Your task to perform on an android device: Open Maps and search for coffee Image 0: 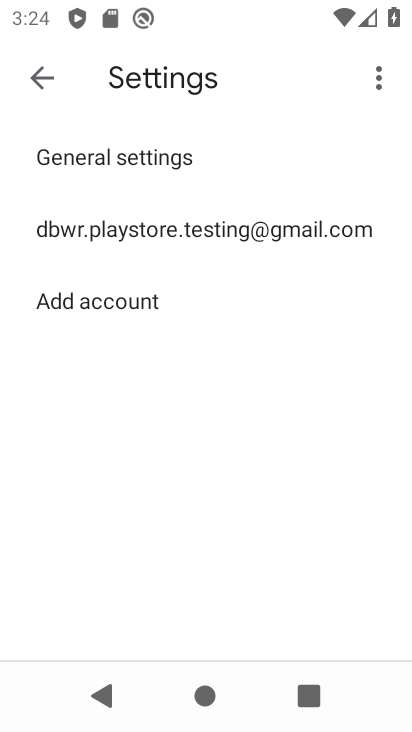
Step 0: press home button
Your task to perform on an android device: Open Maps and search for coffee Image 1: 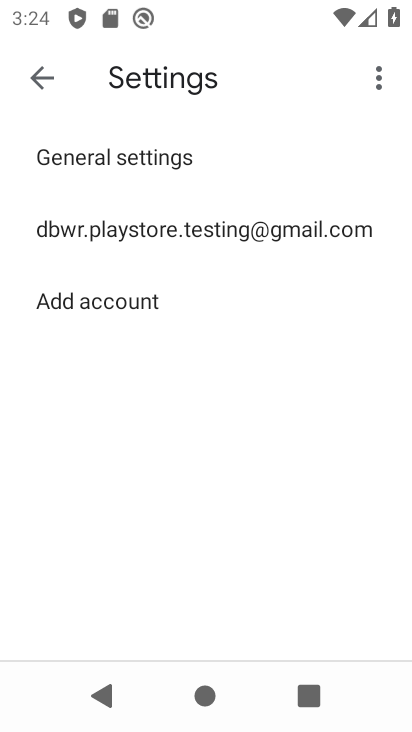
Step 1: press home button
Your task to perform on an android device: Open Maps and search for coffee Image 2: 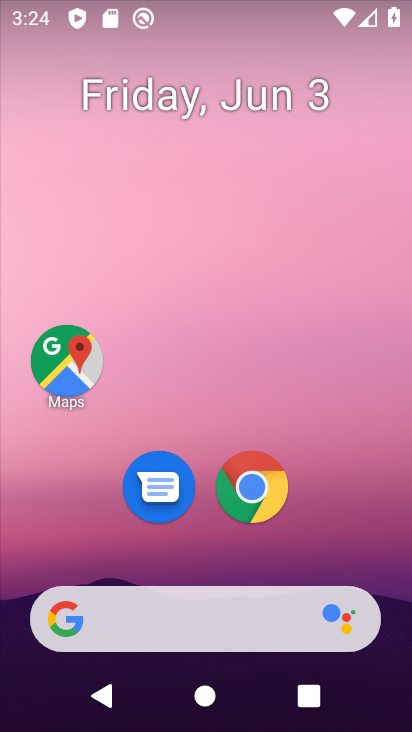
Step 2: drag from (219, 531) to (37, 266)
Your task to perform on an android device: Open Maps and search for coffee Image 3: 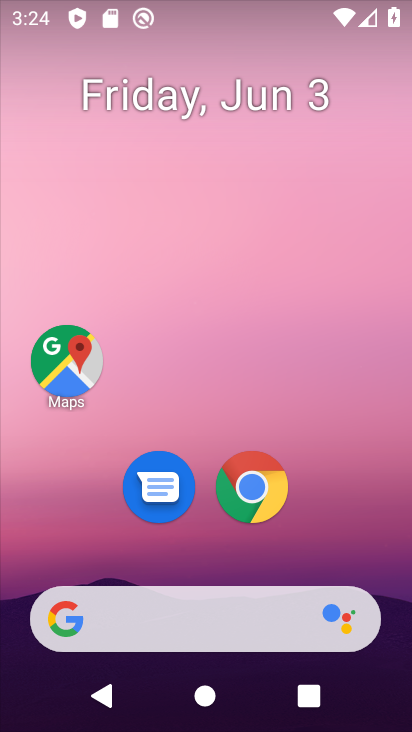
Step 3: click (68, 363)
Your task to perform on an android device: Open Maps and search for coffee Image 4: 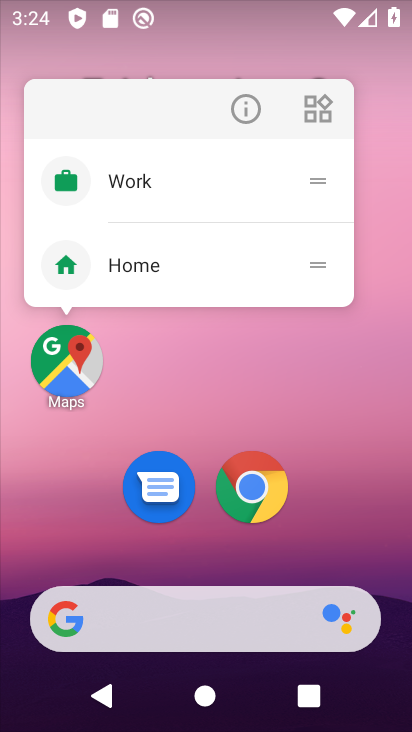
Step 4: click (242, 114)
Your task to perform on an android device: Open Maps and search for coffee Image 5: 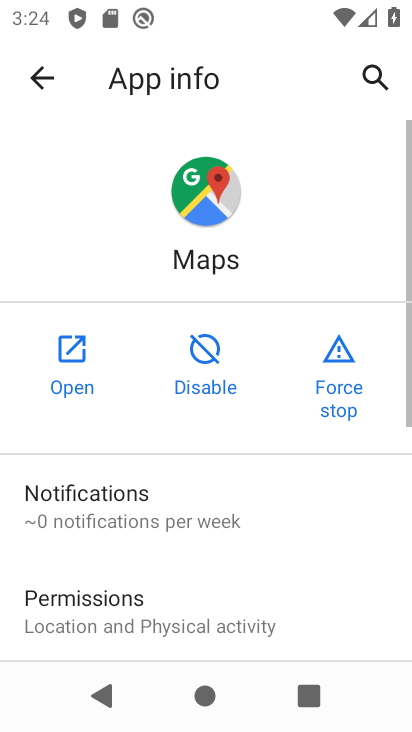
Step 5: click (54, 371)
Your task to perform on an android device: Open Maps and search for coffee Image 6: 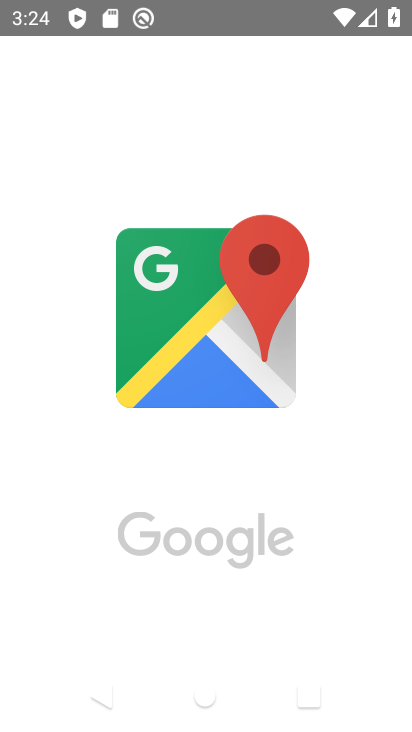
Step 6: drag from (202, 590) to (277, 179)
Your task to perform on an android device: Open Maps and search for coffee Image 7: 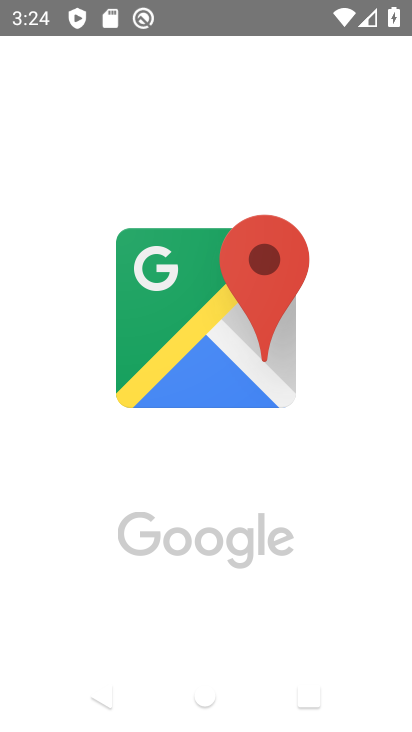
Step 7: drag from (241, 324) to (241, 227)
Your task to perform on an android device: Open Maps and search for coffee Image 8: 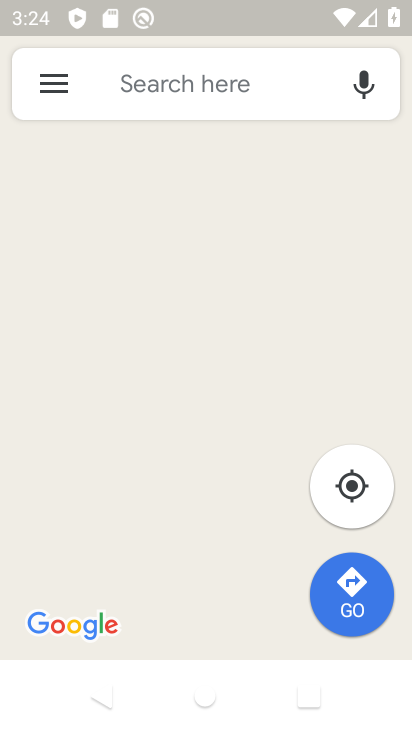
Step 8: drag from (224, 519) to (265, 97)
Your task to perform on an android device: Open Maps and search for coffee Image 9: 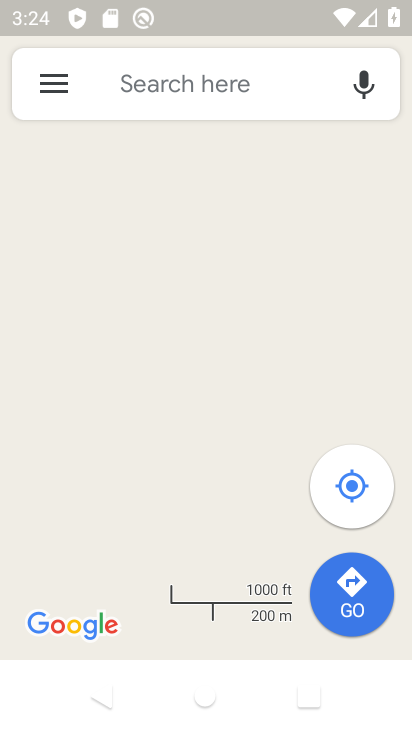
Step 9: click (148, 76)
Your task to perform on an android device: Open Maps and search for coffee Image 10: 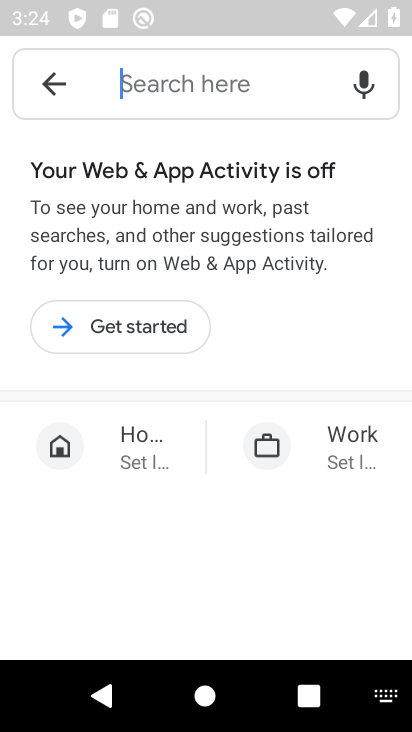
Step 10: drag from (190, 532) to (274, 137)
Your task to perform on an android device: Open Maps and search for coffee Image 11: 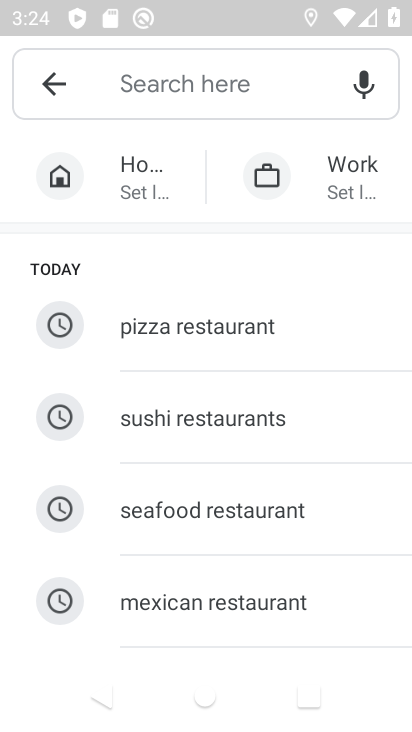
Step 11: drag from (201, 557) to (254, 238)
Your task to perform on an android device: Open Maps and search for coffee Image 12: 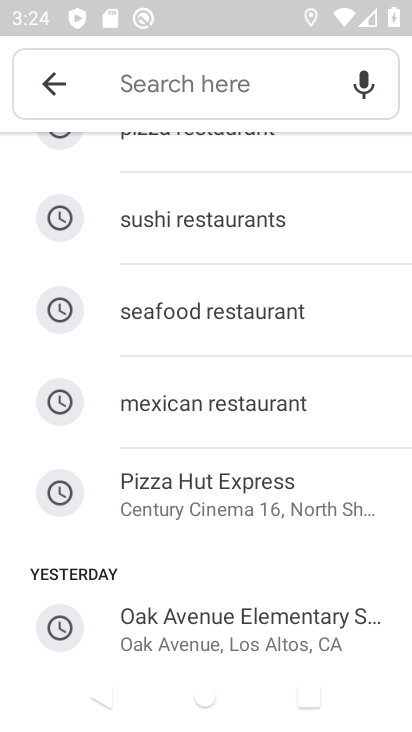
Step 12: drag from (241, 556) to (279, 152)
Your task to perform on an android device: Open Maps and search for coffee Image 13: 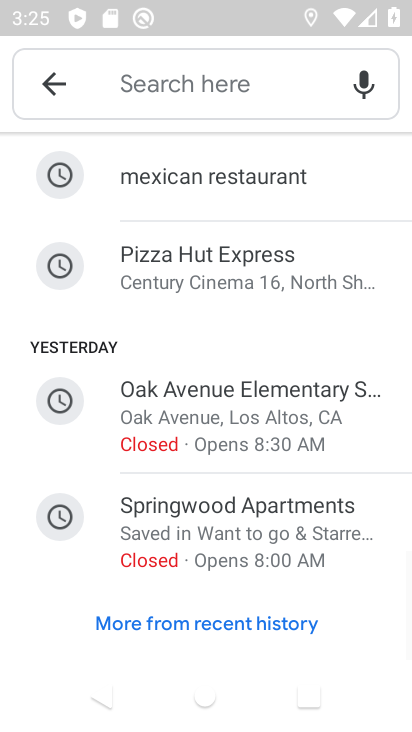
Step 13: drag from (205, 560) to (231, 187)
Your task to perform on an android device: Open Maps and search for coffee Image 14: 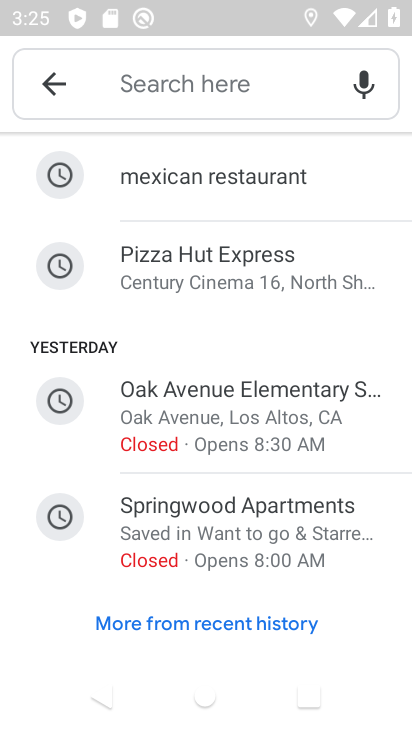
Step 14: drag from (199, 281) to (397, 720)
Your task to perform on an android device: Open Maps and search for coffee Image 15: 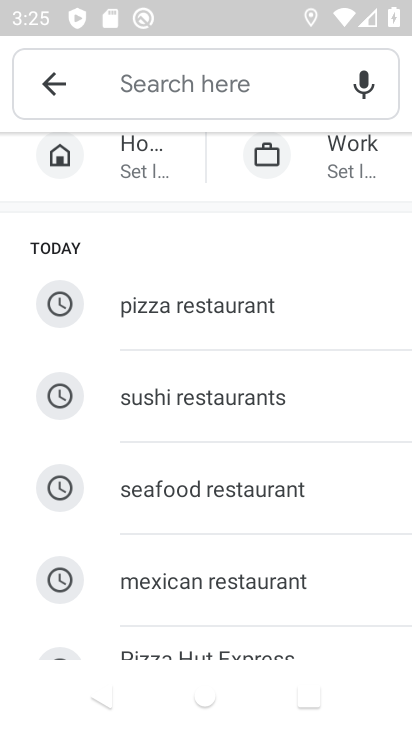
Step 15: drag from (125, 241) to (218, 637)
Your task to perform on an android device: Open Maps and search for coffee Image 16: 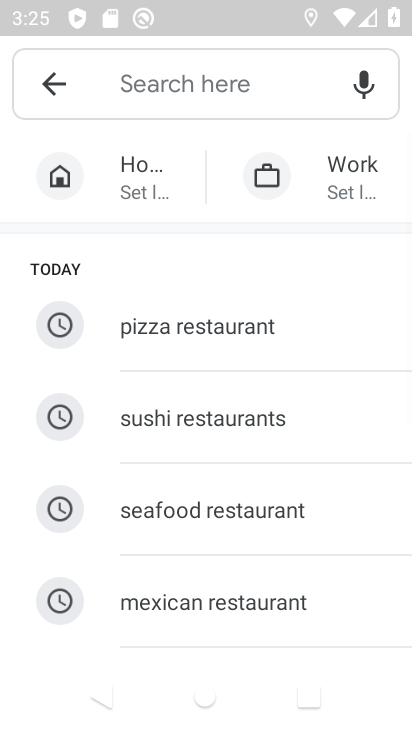
Step 16: click (118, 91)
Your task to perform on an android device: Open Maps and search for coffee Image 17: 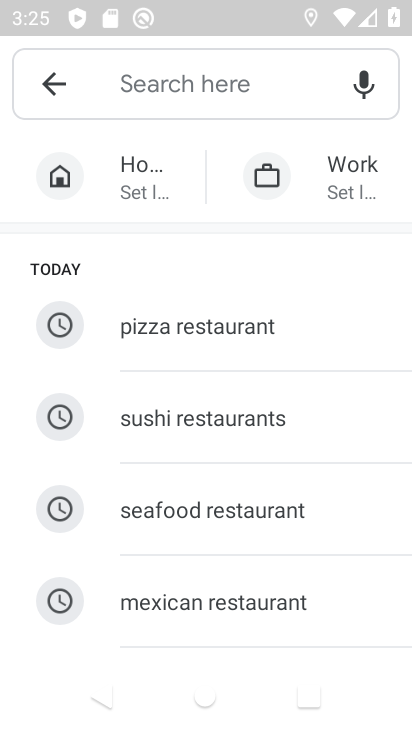
Step 17: drag from (222, 400) to (218, 658)
Your task to perform on an android device: Open Maps and search for coffee Image 18: 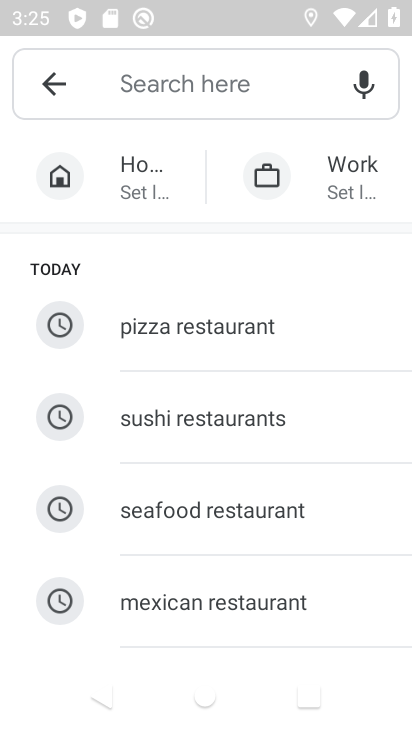
Step 18: click (149, 74)
Your task to perform on an android device: Open Maps and search for coffee Image 19: 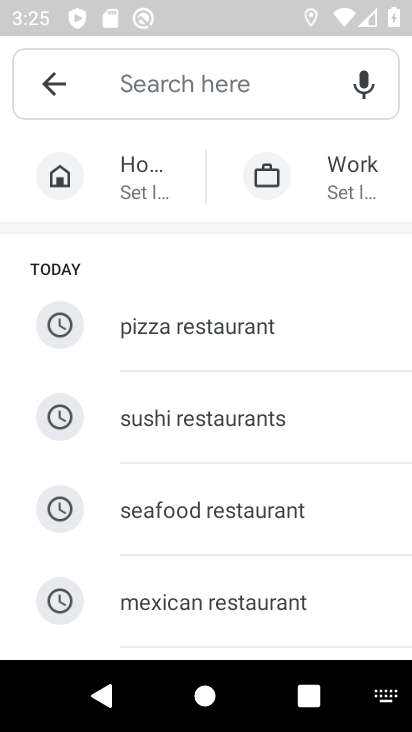
Step 19: type "coffee"
Your task to perform on an android device: Open Maps and search for coffee Image 20: 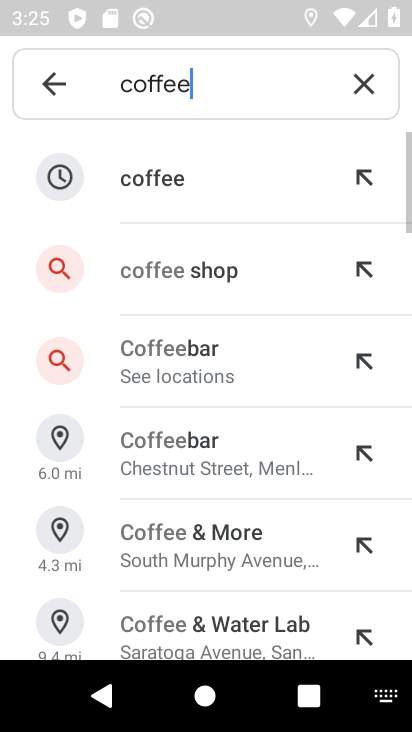
Step 20: click (175, 186)
Your task to perform on an android device: Open Maps and search for coffee Image 21: 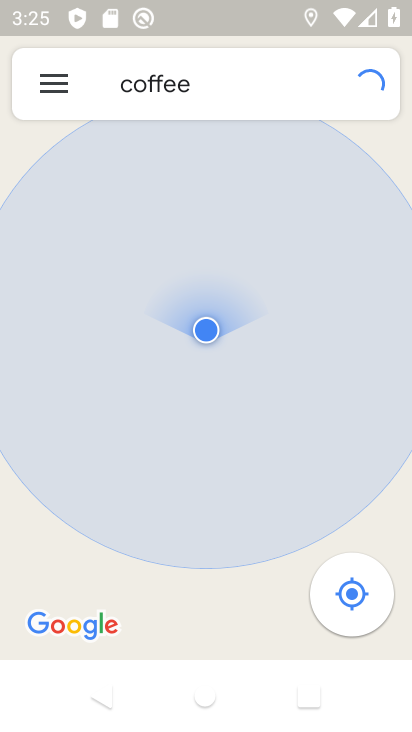
Step 21: task complete